Your task to perform on an android device: Clear all items from cart on costco.com. Add "corsair k70" to the cart on costco.com, then select checkout. Image 0: 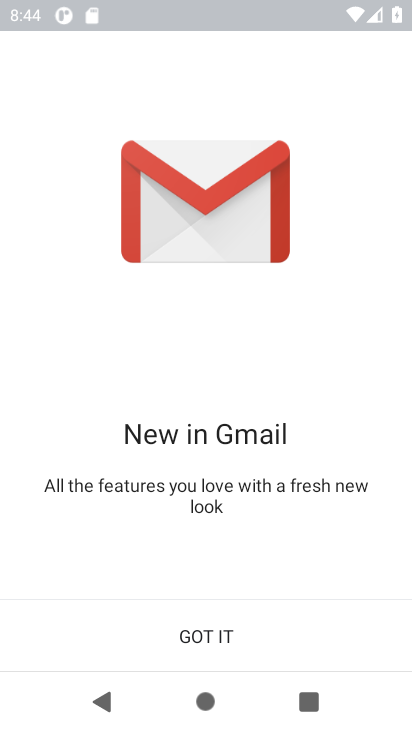
Step 0: press home button
Your task to perform on an android device: Clear all items from cart on costco.com. Add "corsair k70" to the cart on costco.com, then select checkout. Image 1: 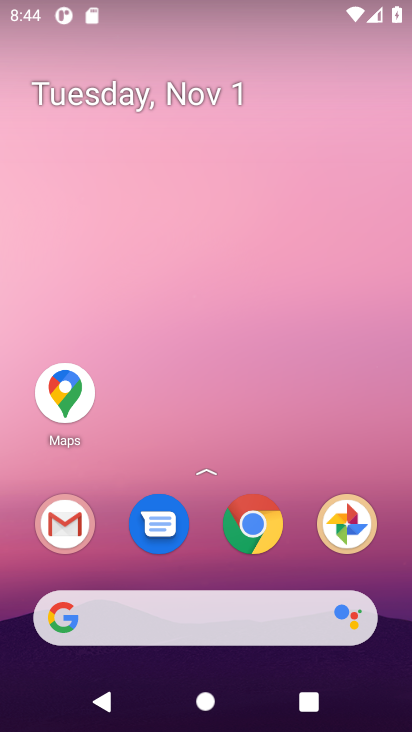
Step 1: click (107, 617)
Your task to perform on an android device: Clear all items from cart on costco.com. Add "corsair k70" to the cart on costco.com, then select checkout. Image 2: 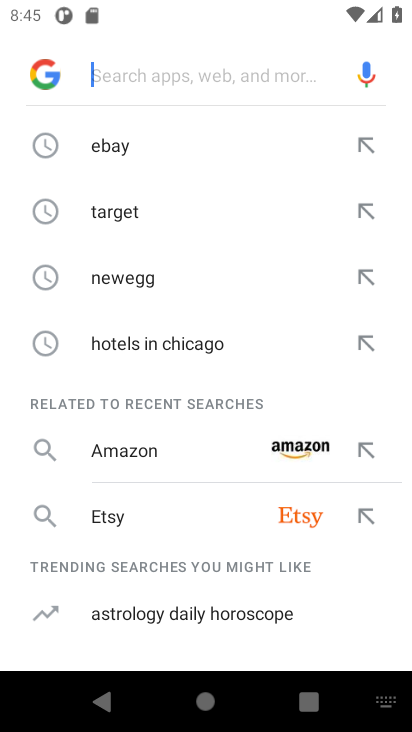
Step 2: type "costco.com"
Your task to perform on an android device: Clear all items from cart on costco.com. Add "corsair k70" to the cart on costco.com, then select checkout. Image 3: 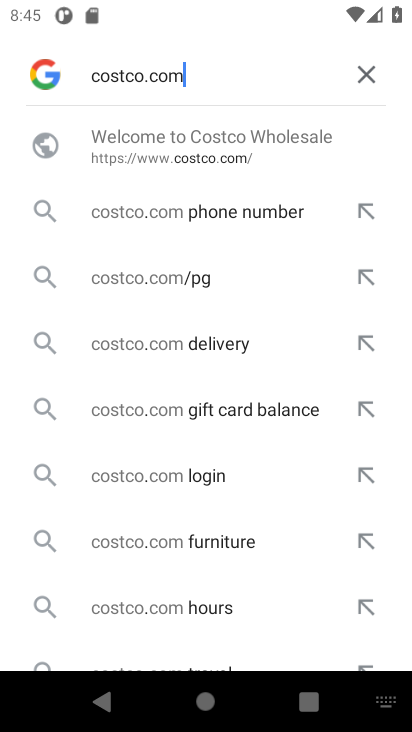
Step 3: press enter
Your task to perform on an android device: Clear all items from cart on costco.com. Add "corsair k70" to the cart on costco.com, then select checkout. Image 4: 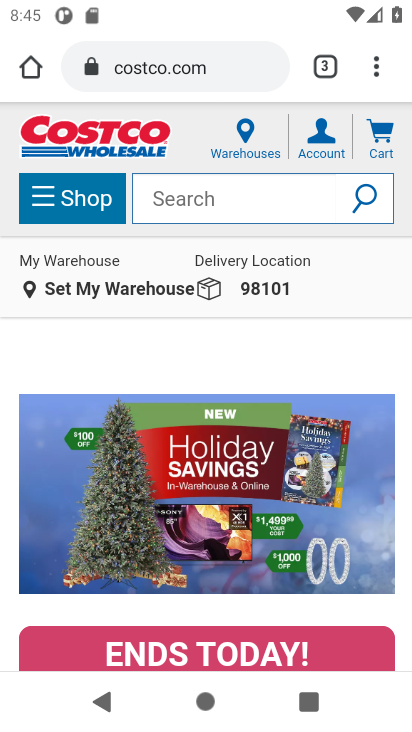
Step 4: click (372, 126)
Your task to perform on an android device: Clear all items from cart on costco.com. Add "corsair k70" to the cart on costco.com, then select checkout. Image 5: 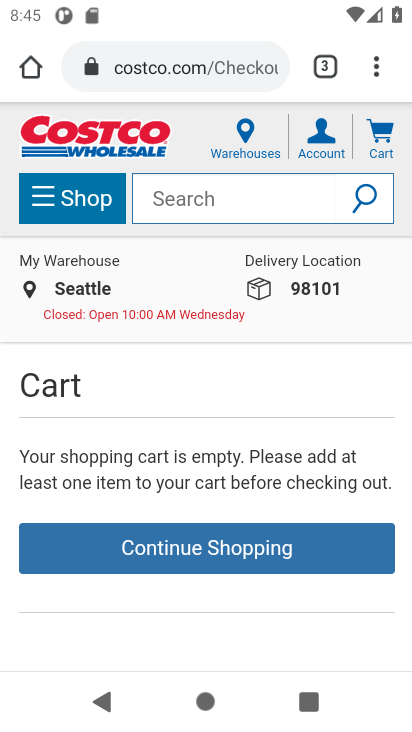
Step 5: click (157, 193)
Your task to perform on an android device: Clear all items from cart on costco.com. Add "corsair k70" to the cart on costco.com, then select checkout. Image 6: 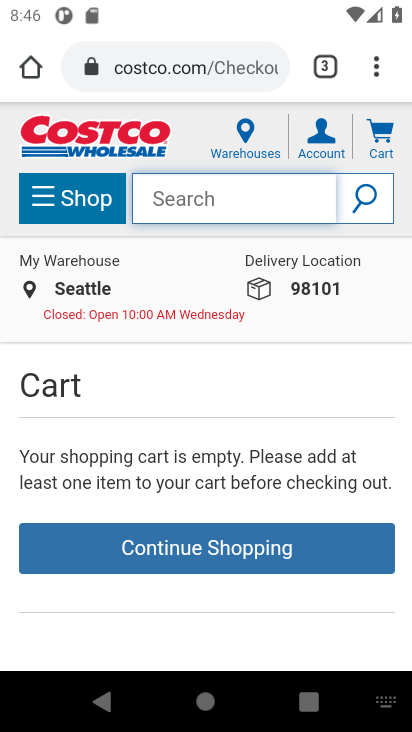
Step 6: type "corsair k70"
Your task to perform on an android device: Clear all items from cart on costco.com. Add "corsair k70" to the cart on costco.com, then select checkout. Image 7: 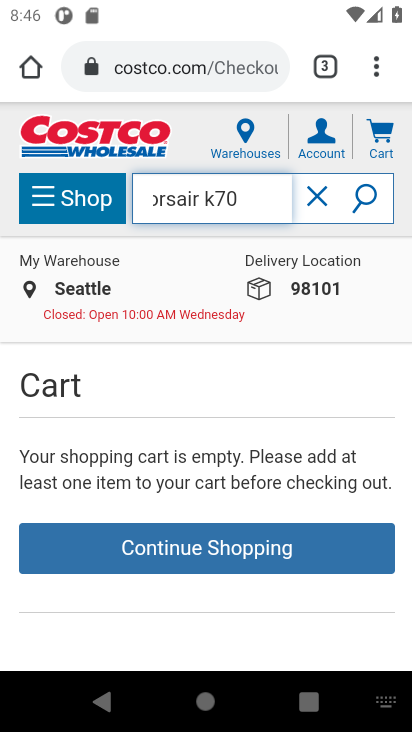
Step 7: click (366, 188)
Your task to perform on an android device: Clear all items from cart on costco.com. Add "corsair k70" to the cart on costco.com, then select checkout. Image 8: 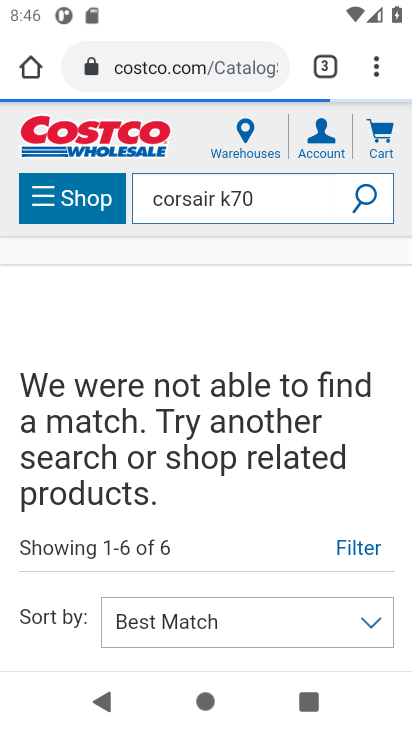
Step 8: task complete